Your task to perform on an android device: turn off picture-in-picture Image 0: 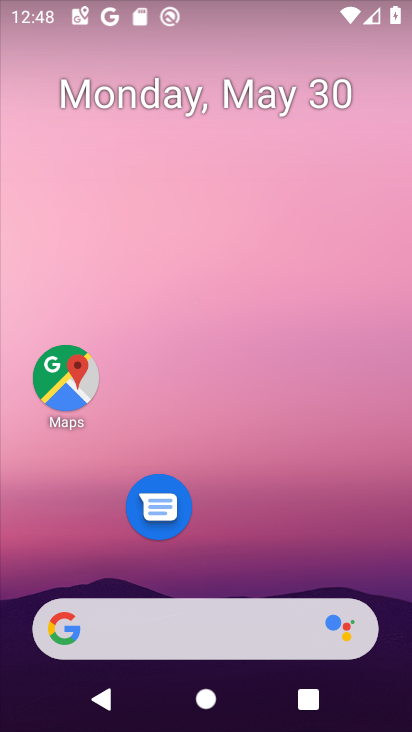
Step 0: drag from (334, 534) to (394, 128)
Your task to perform on an android device: turn off picture-in-picture Image 1: 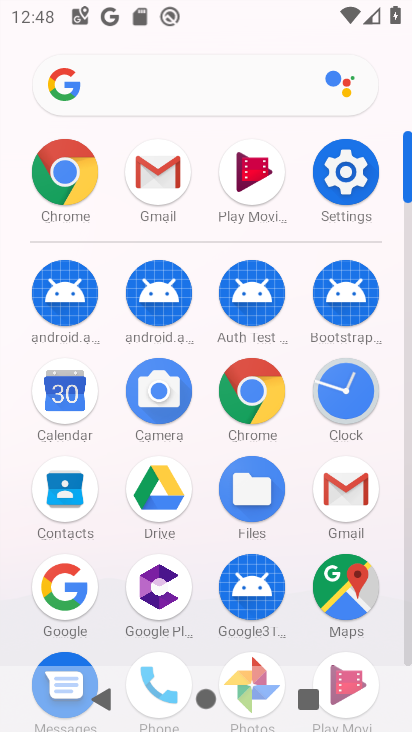
Step 1: click (256, 381)
Your task to perform on an android device: turn off picture-in-picture Image 2: 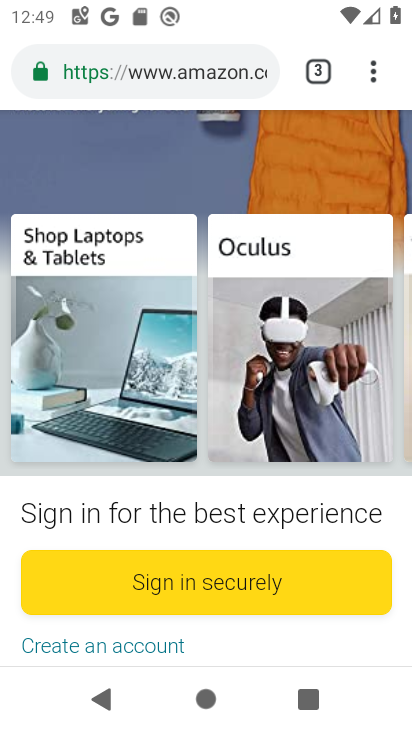
Step 2: drag from (336, 131) to (274, 590)
Your task to perform on an android device: turn off picture-in-picture Image 3: 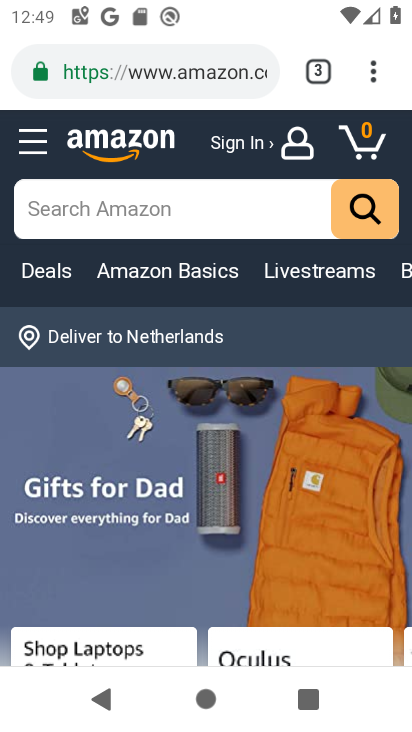
Step 3: drag from (375, 73) to (103, 506)
Your task to perform on an android device: turn off picture-in-picture Image 4: 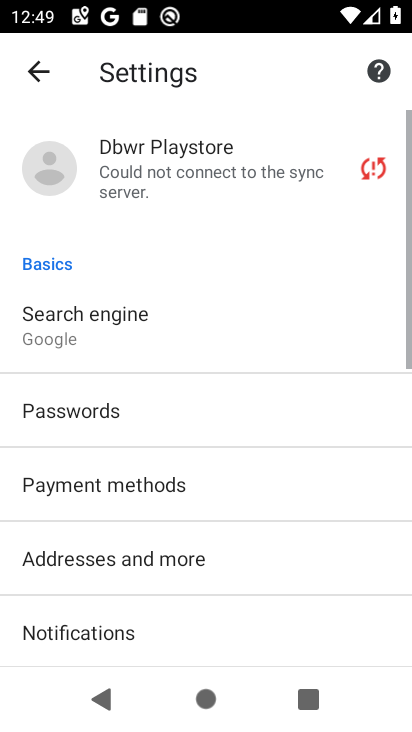
Step 4: drag from (215, 544) to (241, 247)
Your task to perform on an android device: turn off picture-in-picture Image 5: 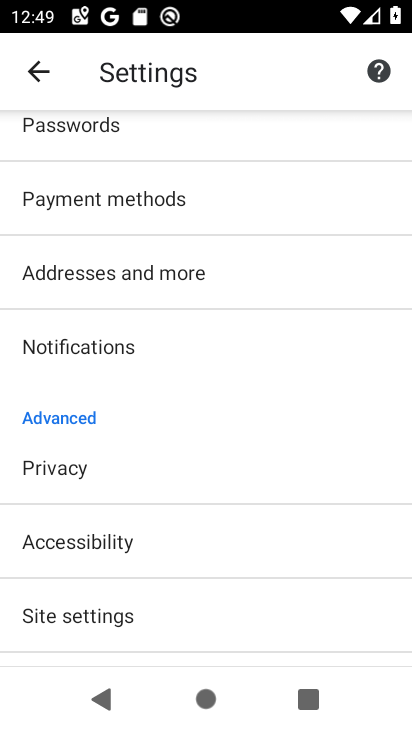
Step 5: drag from (234, 577) to (252, 231)
Your task to perform on an android device: turn off picture-in-picture Image 6: 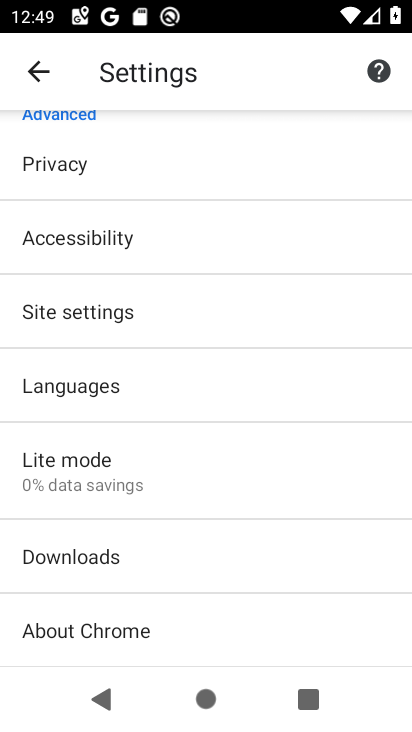
Step 6: drag from (184, 547) to (186, 392)
Your task to perform on an android device: turn off picture-in-picture Image 7: 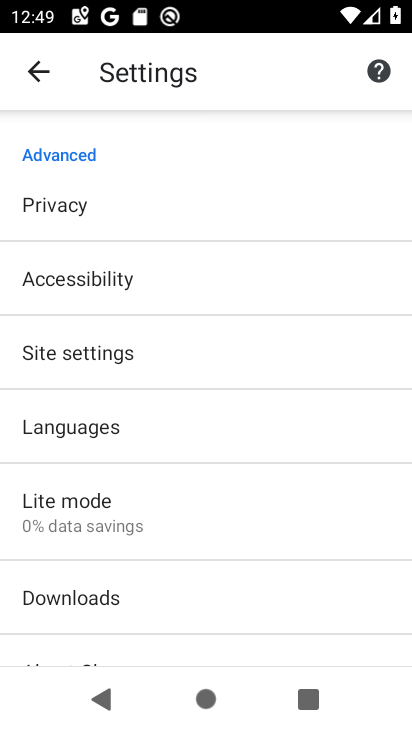
Step 7: press home button
Your task to perform on an android device: turn off picture-in-picture Image 8: 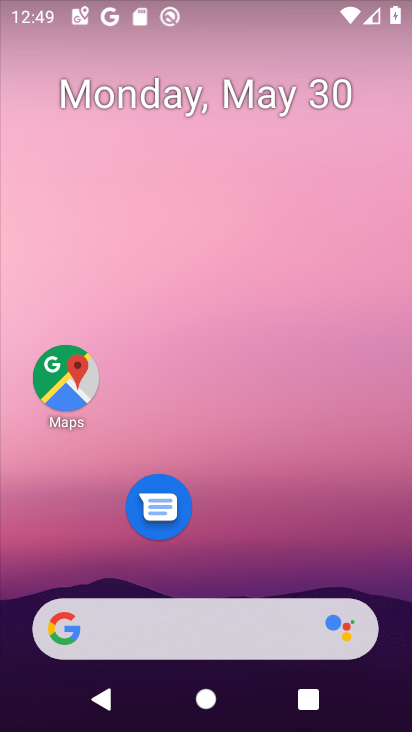
Step 8: drag from (213, 572) to (228, 127)
Your task to perform on an android device: turn off picture-in-picture Image 9: 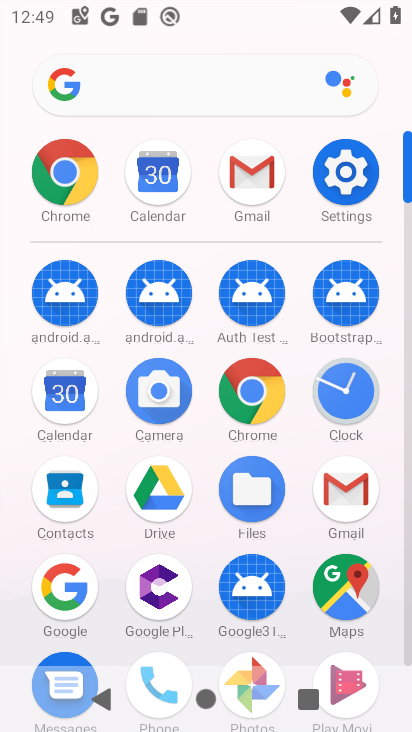
Step 9: click (253, 393)
Your task to perform on an android device: turn off picture-in-picture Image 10: 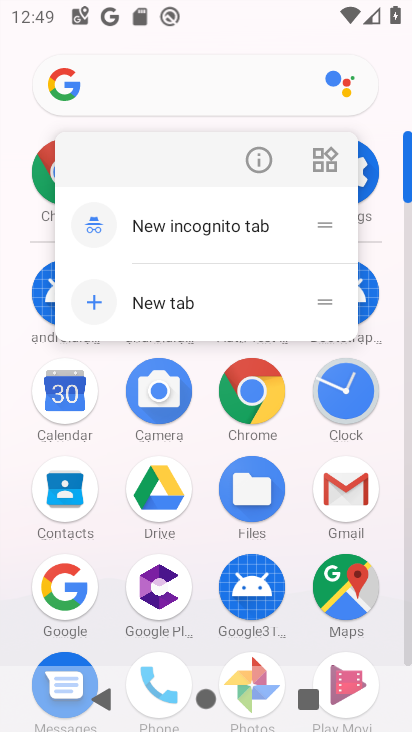
Step 10: click (258, 156)
Your task to perform on an android device: turn off picture-in-picture Image 11: 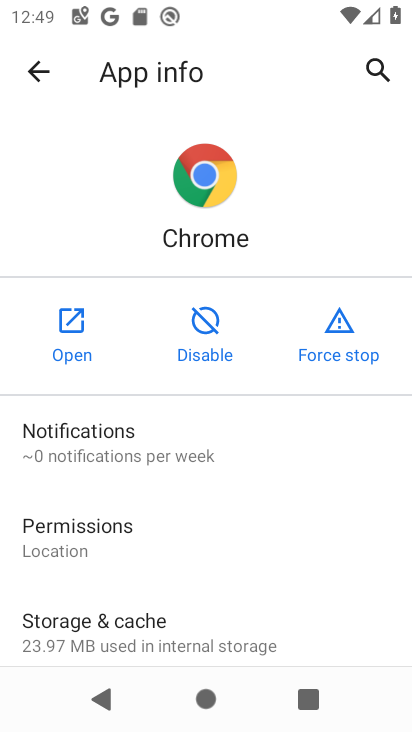
Step 11: drag from (215, 579) to (228, 259)
Your task to perform on an android device: turn off picture-in-picture Image 12: 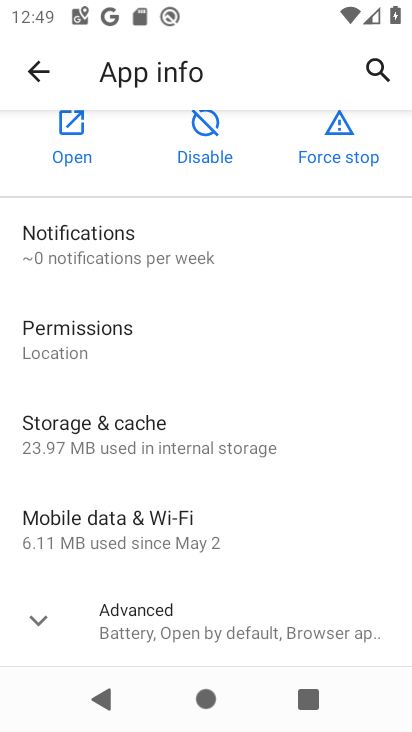
Step 12: drag from (204, 589) to (220, 388)
Your task to perform on an android device: turn off picture-in-picture Image 13: 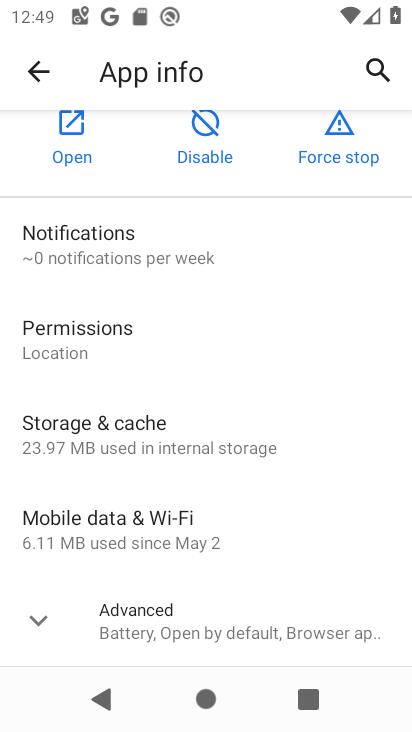
Step 13: click (206, 631)
Your task to perform on an android device: turn off picture-in-picture Image 14: 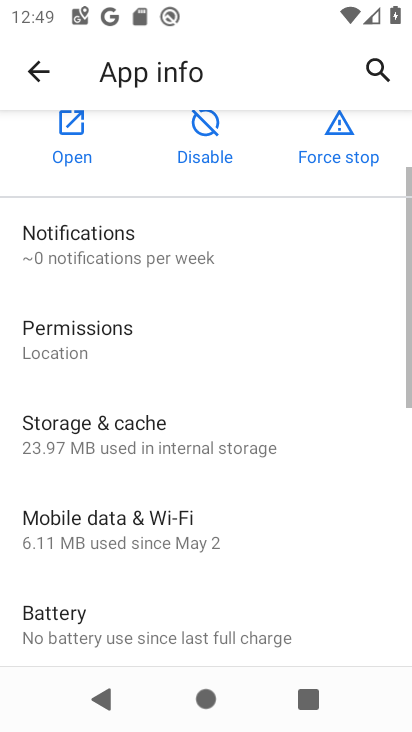
Step 14: drag from (237, 610) to (257, 291)
Your task to perform on an android device: turn off picture-in-picture Image 15: 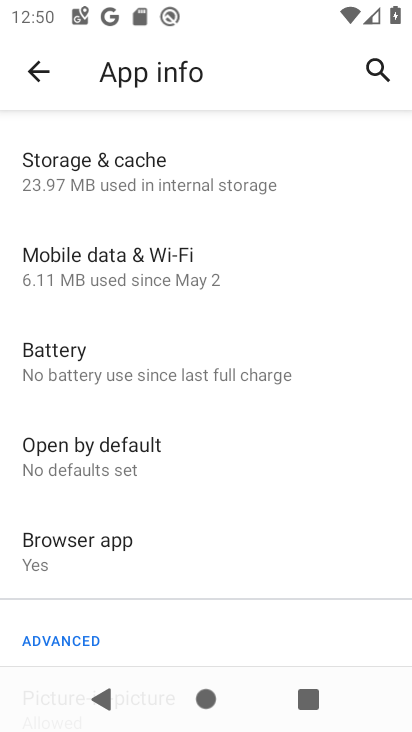
Step 15: drag from (239, 591) to (250, 325)
Your task to perform on an android device: turn off picture-in-picture Image 16: 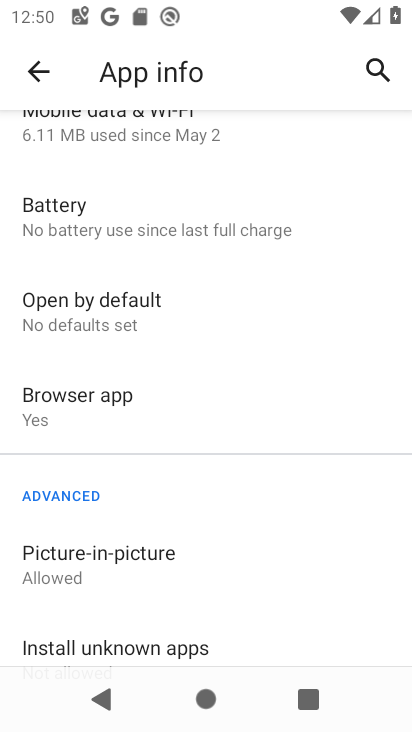
Step 16: drag from (194, 570) to (233, 247)
Your task to perform on an android device: turn off picture-in-picture Image 17: 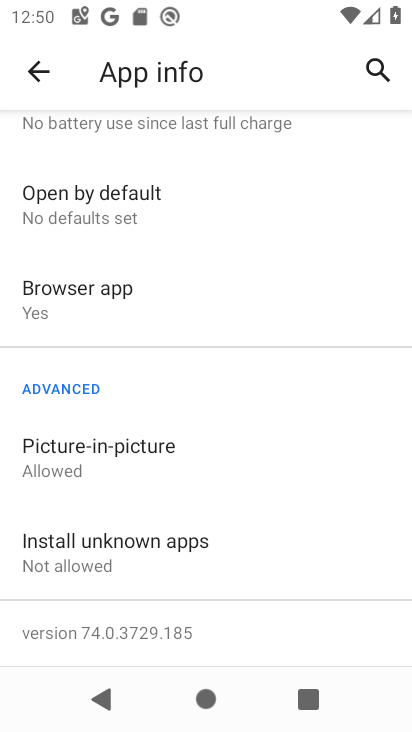
Step 17: drag from (189, 588) to (214, 421)
Your task to perform on an android device: turn off picture-in-picture Image 18: 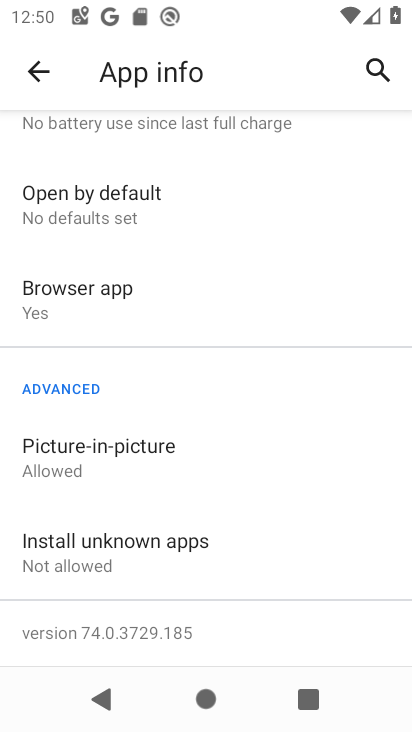
Step 18: click (73, 449)
Your task to perform on an android device: turn off picture-in-picture Image 19: 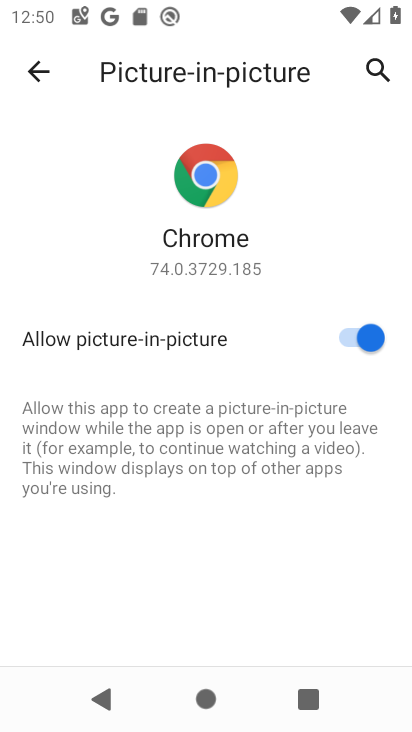
Step 19: click (349, 341)
Your task to perform on an android device: turn off picture-in-picture Image 20: 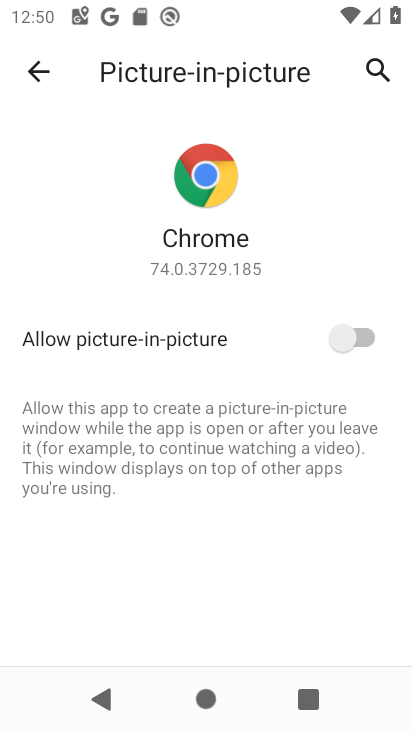
Step 20: task complete